Your task to perform on an android device: toggle improve location accuracy Image 0: 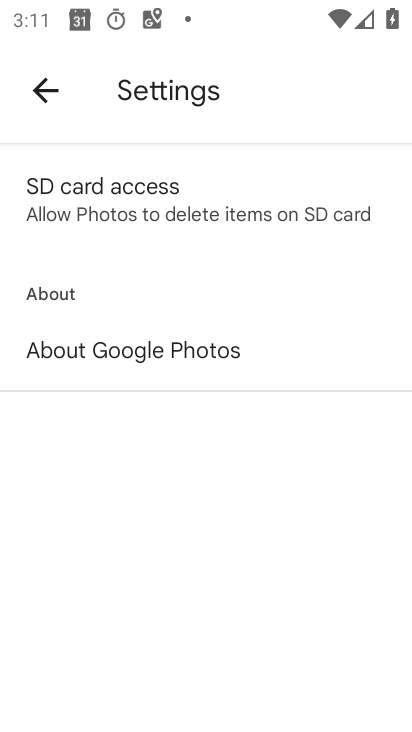
Step 0: press home button
Your task to perform on an android device: toggle improve location accuracy Image 1: 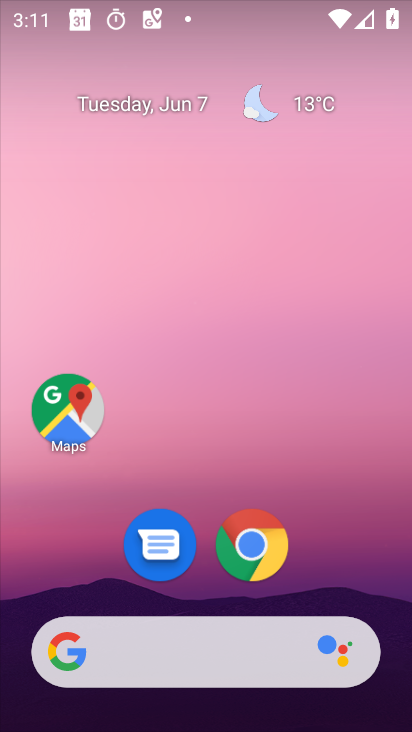
Step 1: drag from (362, 564) to (126, 12)
Your task to perform on an android device: toggle improve location accuracy Image 2: 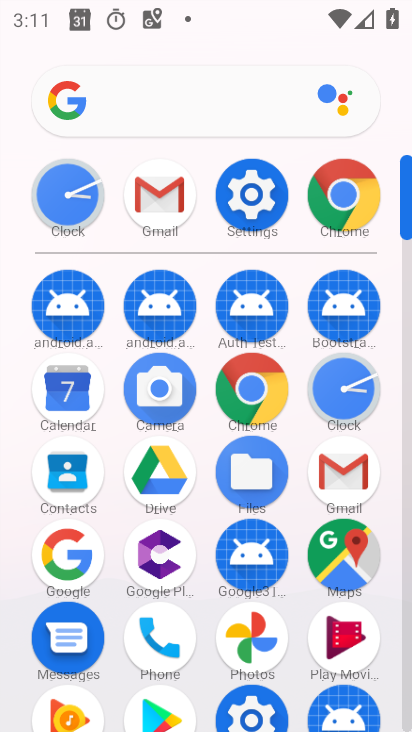
Step 2: click (248, 192)
Your task to perform on an android device: toggle improve location accuracy Image 3: 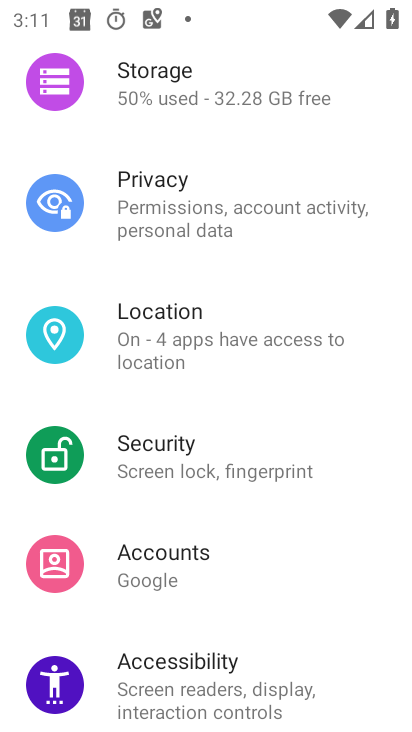
Step 3: click (216, 350)
Your task to perform on an android device: toggle improve location accuracy Image 4: 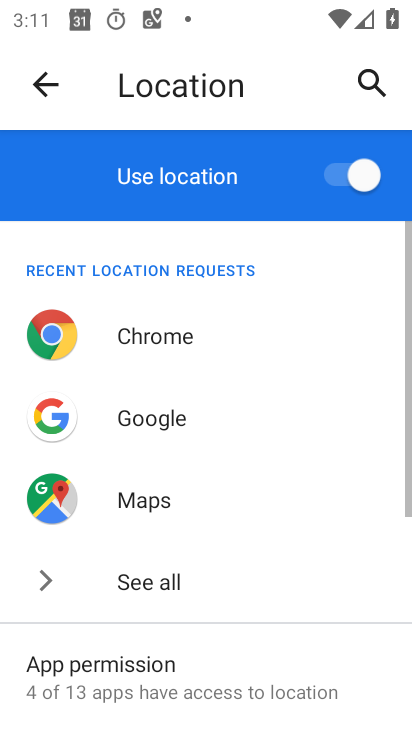
Step 4: drag from (265, 562) to (280, 77)
Your task to perform on an android device: toggle improve location accuracy Image 5: 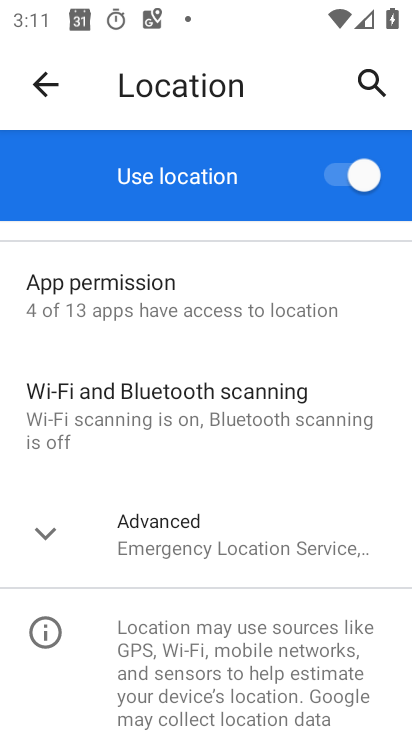
Step 5: click (258, 562)
Your task to perform on an android device: toggle improve location accuracy Image 6: 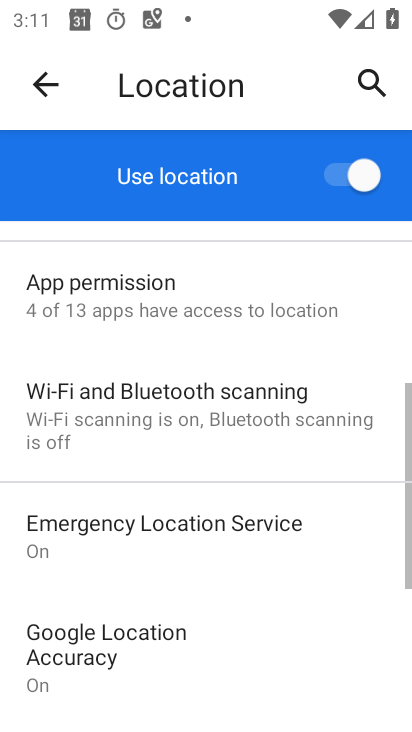
Step 6: drag from (269, 603) to (267, 198)
Your task to perform on an android device: toggle improve location accuracy Image 7: 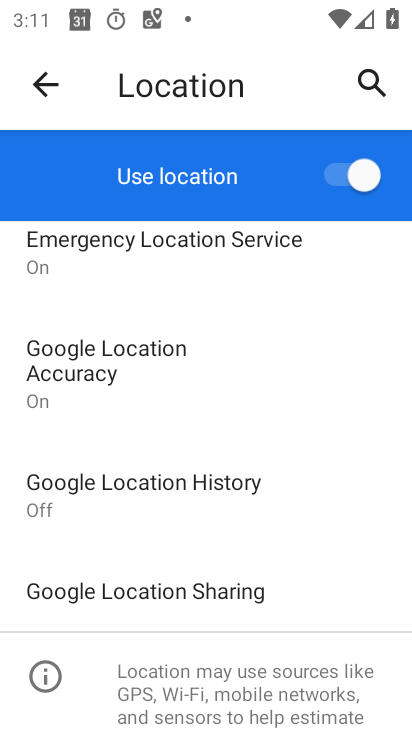
Step 7: click (170, 346)
Your task to perform on an android device: toggle improve location accuracy Image 8: 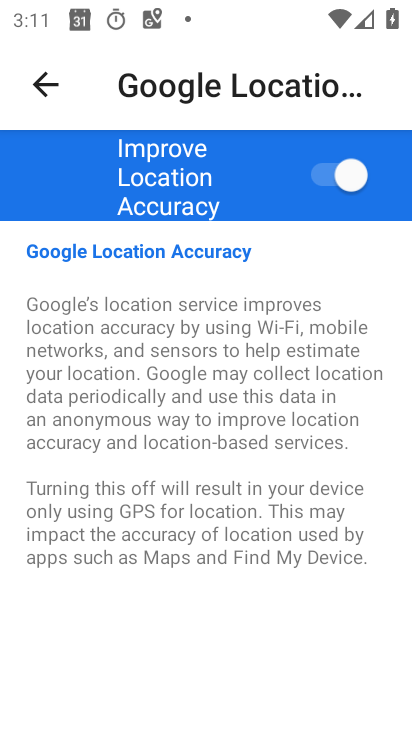
Step 8: click (335, 178)
Your task to perform on an android device: toggle improve location accuracy Image 9: 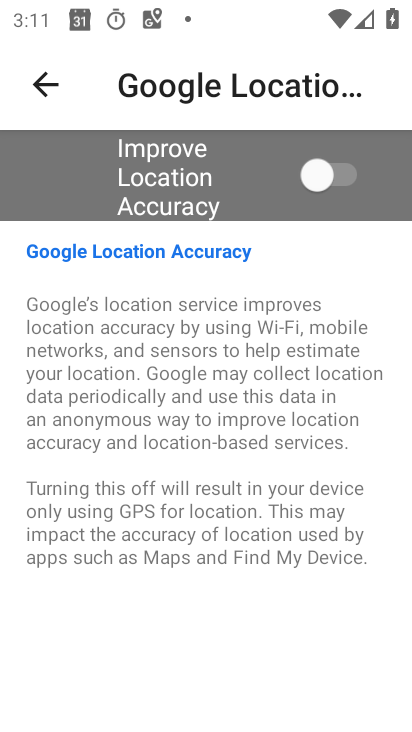
Step 9: task complete